Your task to perform on an android device: uninstall "ZOOM Cloud Meetings" Image 0: 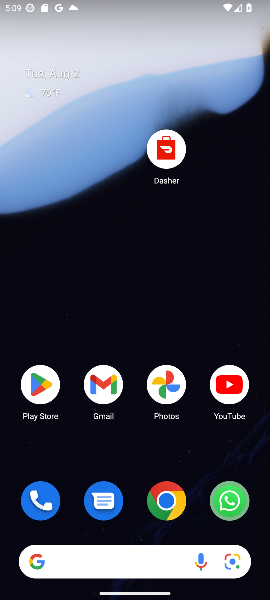
Step 0: click (38, 391)
Your task to perform on an android device: uninstall "ZOOM Cloud Meetings" Image 1: 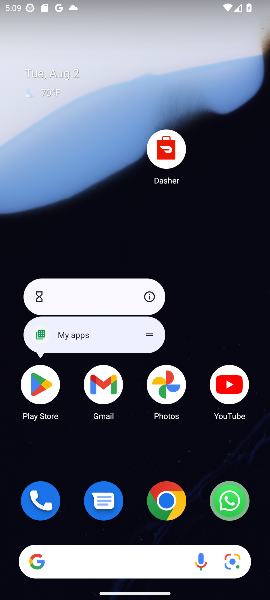
Step 1: click (38, 391)
Your task to perform on an android device: uninstall "ZOOM Cloud Meetings" Image 2: 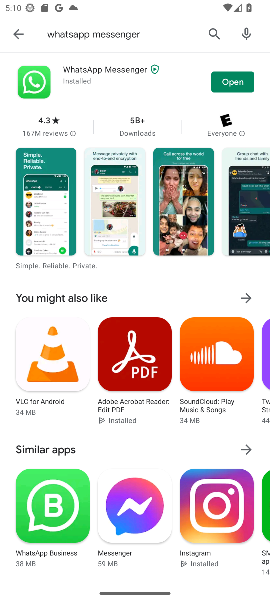
Step 2: click (211, 35)
Your task to perform on an android device: uninstall "ZOOM Cloud Meetings" Image 3: 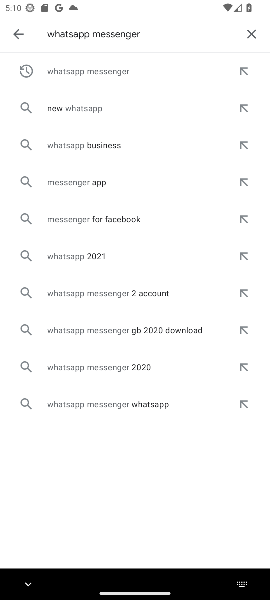
Step 3: click (246, 34)
Your task to perform on an android device: uninstall "ZOOM Cloud Meetings" Image 4: 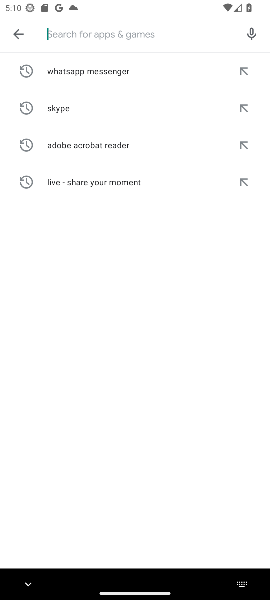
Step 4: type "ZOOM Cloud Meetings"
Your task to perform on an android device: uninstall "ZOOM Cloud Meetings" Image 5: 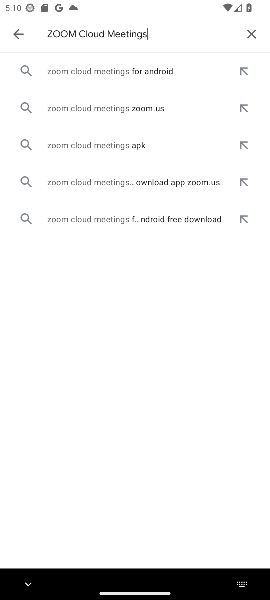
Step 5: click (109, 76)
Your task to perform on an android device: uninstall "ZOOM Cloud Meetings" Image 6: 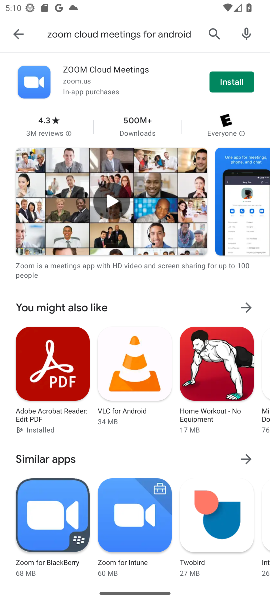
Step 6: task complete